Your task to perform on an android device: turn notification dots off Image 0: 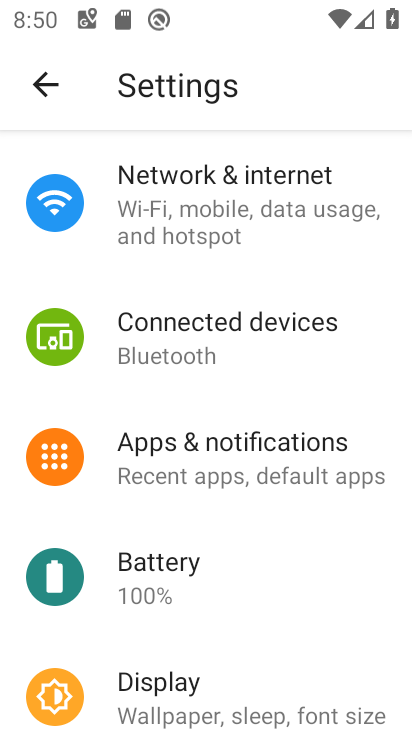
Step 0: drag from (372, 262) to (372, 421)
Your task to perform on an android device: turn notification dots off Image 1: 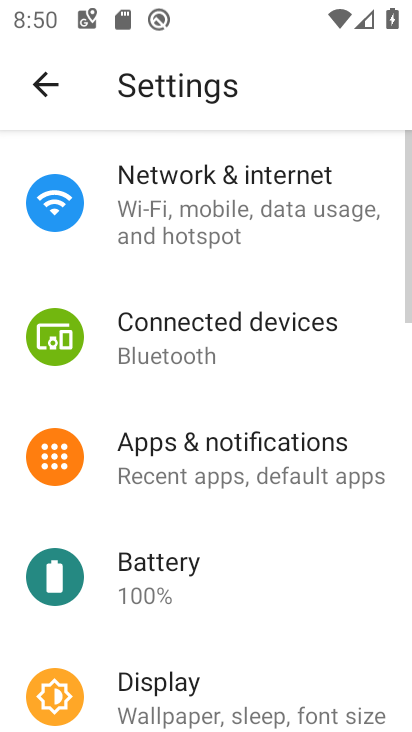
Step 1: drag from (368, 427) to (366, 301)
Your task to perform on an android device: turn notification dots off Image 2: 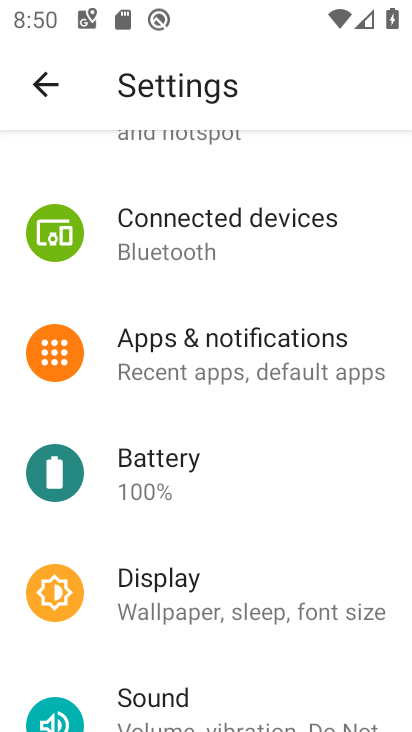
Step 2: drag from (355, 470) to (372, 318)
Your task to perform on an android device: turn notification dots off Image 3: 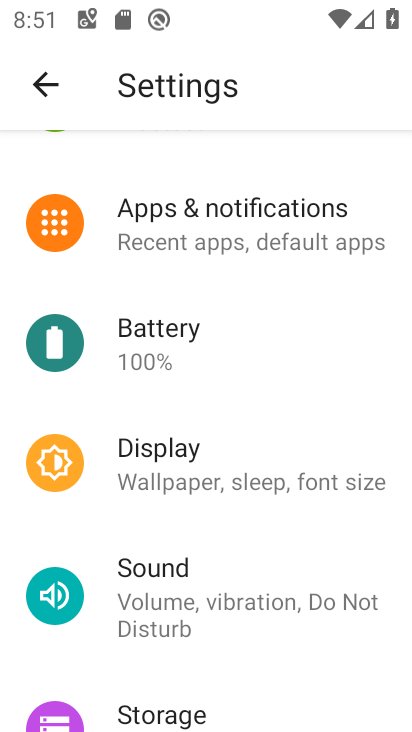
Step 3: click (318, 240)
Your task to perform on an android device: turn notification dots off Image 4: 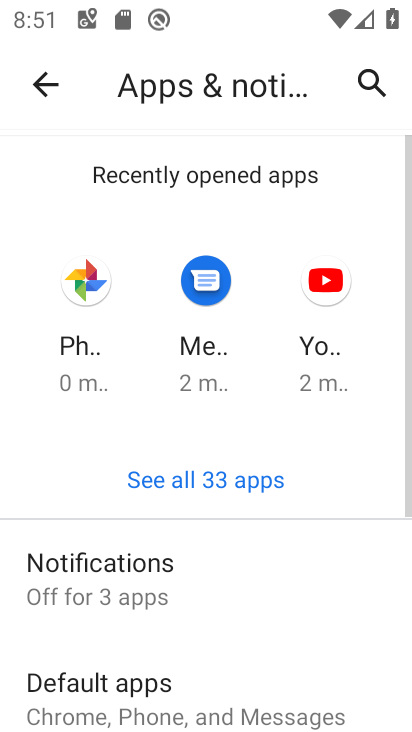
Step 4: drag from (315, 556) to (335, 415)
Your task to perform on an android device: turn notification dots off Image 5: 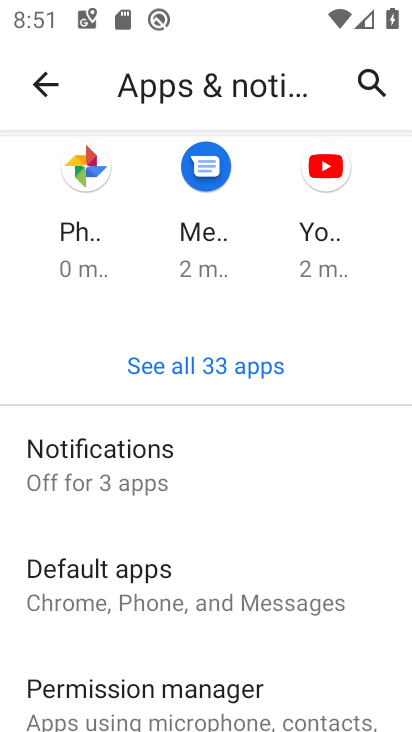
Step 5: click (160, 480)
Your task to perform on an android device: turn notification dots off Image 6: 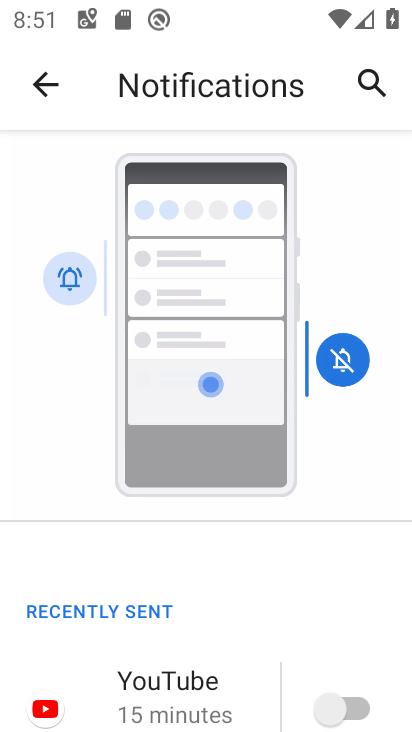
Step 6: drag from (288, 562) to (300, 419)
Your task to perform on an android device: turn notification dots off Image 7: 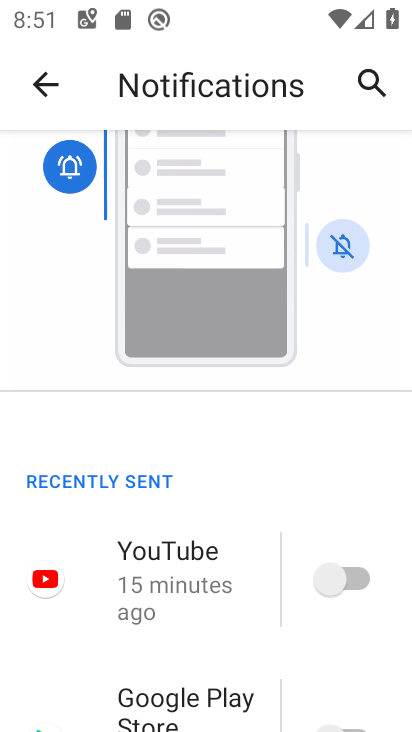
Step 7: drag from (297, 587) to (286, 456)
Your task to perform on an android device: turn notification dots off Image 8: 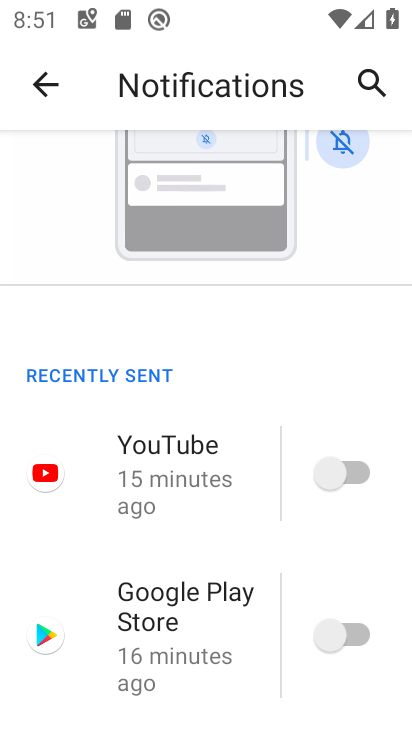
Step 8: drag from (292, 585) to (295, 449)
Your task to perform on an android device: turn notification dots off Image 9: 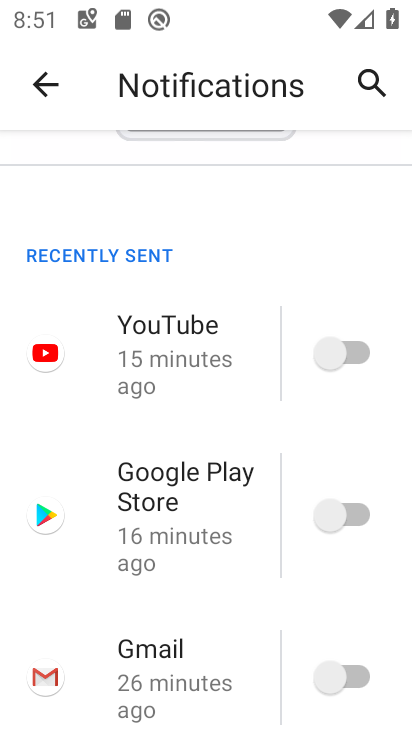
Step 9: drag from (249, 623) to (252, 488)
Your task to perform on an android device: turn notification dots off Image 10: 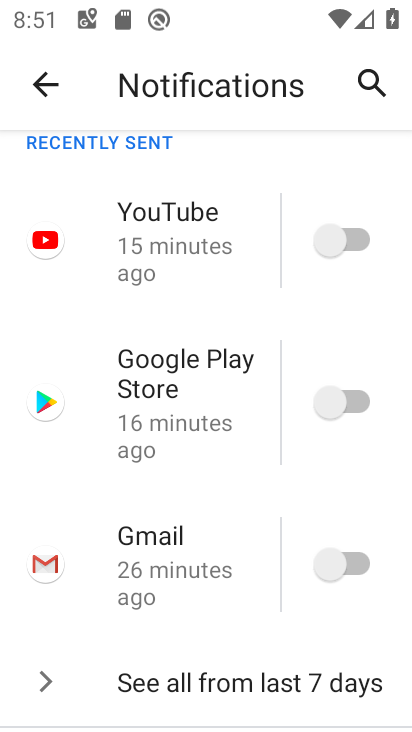
Step 10: drag from (245, 636) to (245, 471)
Your task to perform on an android device: turn notification dots off Image 11: 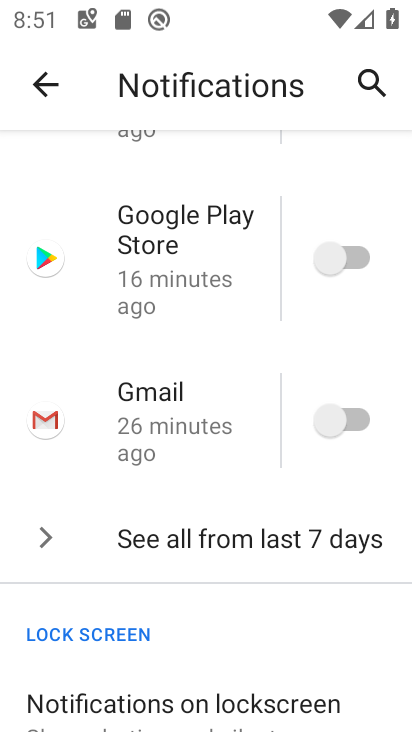
Step 11: drag from (252, 611) to (255, 439)
Your task to perform on an android device: turn notification dots off Image 12: 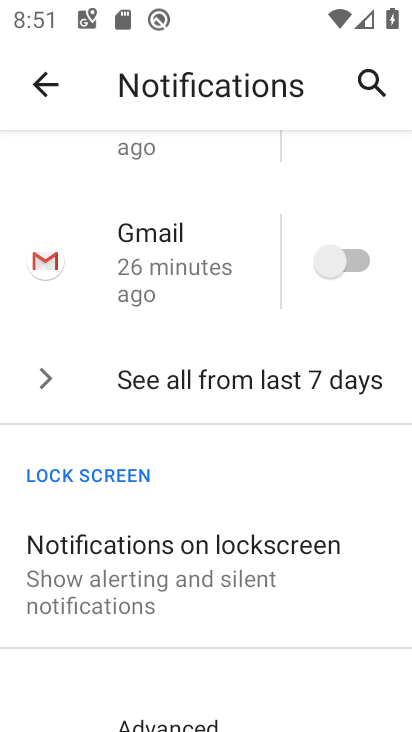
Step 12: drag from (267, 650) to (263, 451)
Your task to perform on an android device: turn notification dots off Image 13: 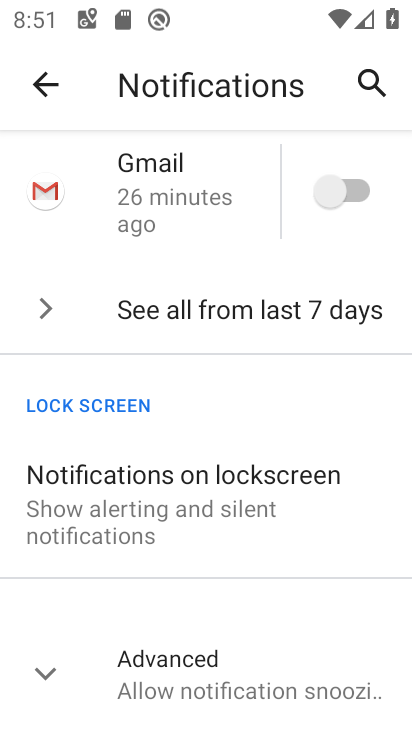
Step 13: click (257, 674)
Your task to perform on an android device: turn notification dots off Image 14: 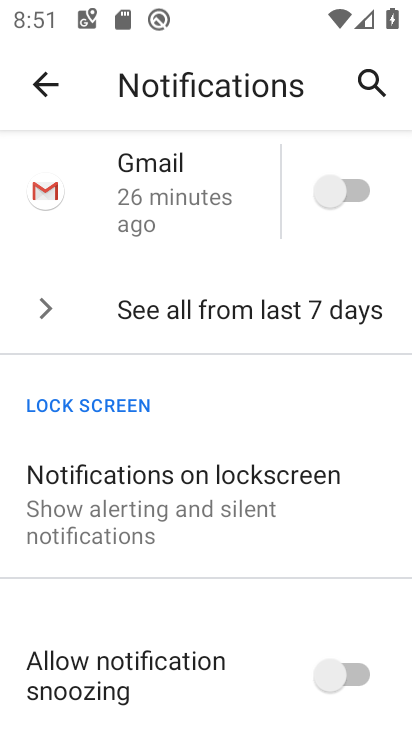
Step 14: task complete